Your task to perform on an android device: Open battery settings Image 0: 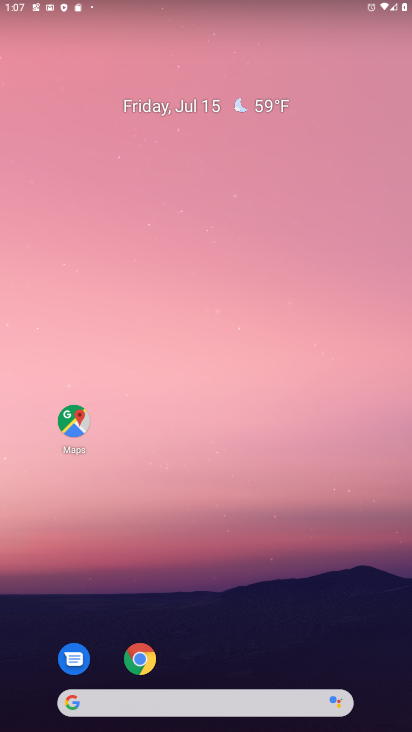
Step 0: drag from (220, 699) to (227, 147)
Your task to perform on an android device: Open battery settings Image 1: 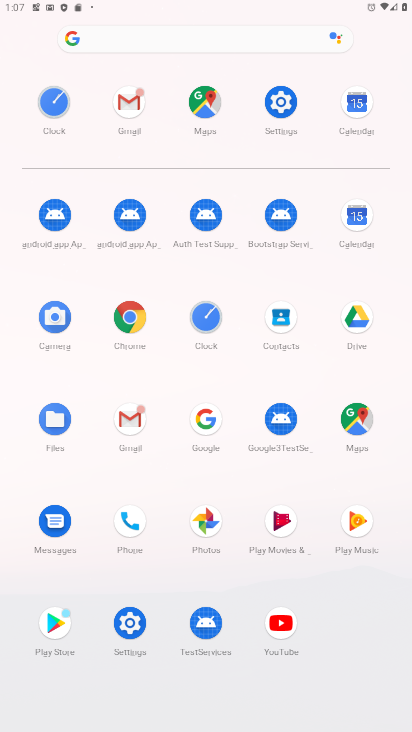
Step 1: click (284, 102)
Your task to perform on an android device: Open battery settings Image 2: 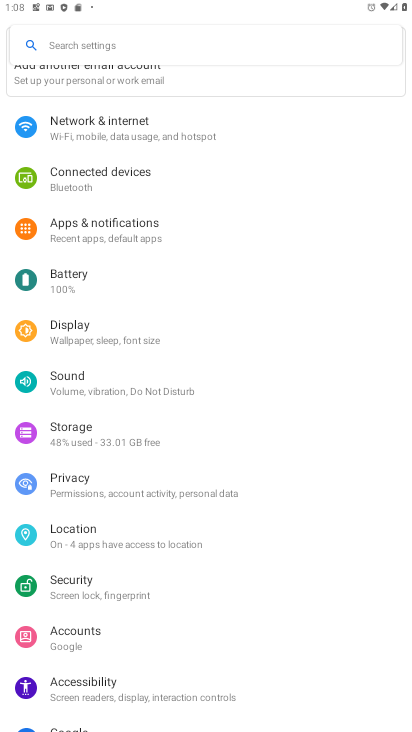
Step 2: click (72, 279)
Your task to perform on an android device: Open battery settings Image 3: 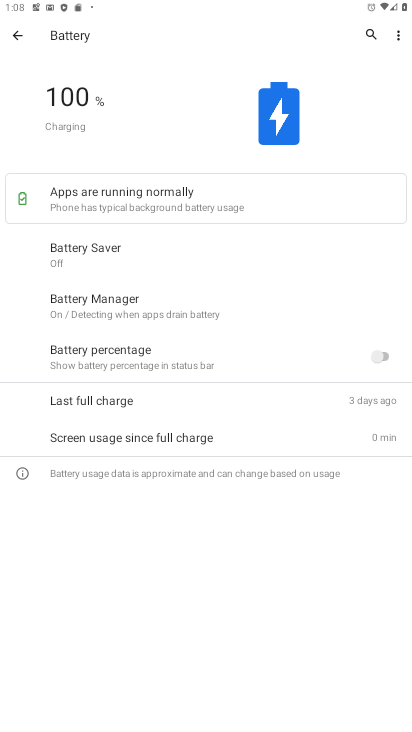
Step 3: task complete